Your task to perform on an android device: open device folders in google photos Image 0: 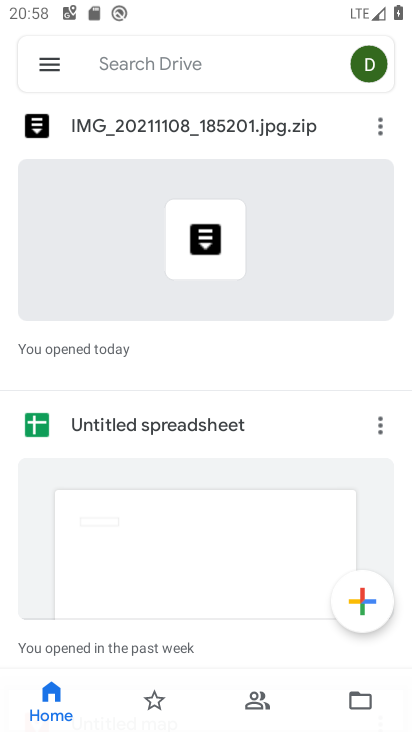
Step 0: press home button
Your task to perform on an android device: open device folders in google photos Image 1: 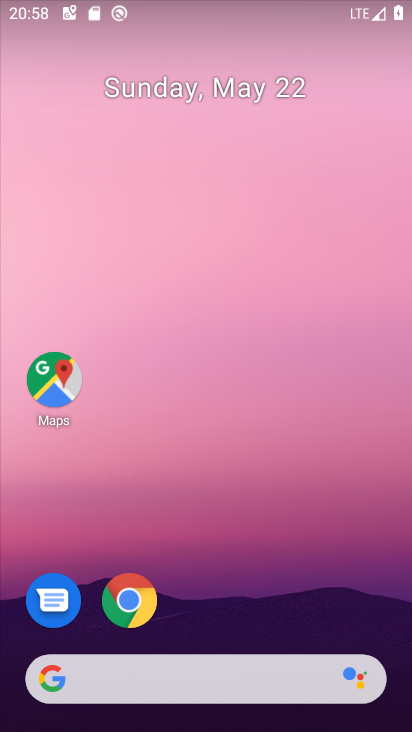
Step 1: drag from (244, 604) to (266, 340)
Your task to perform on an android device: open device folders in google photos Image 2: 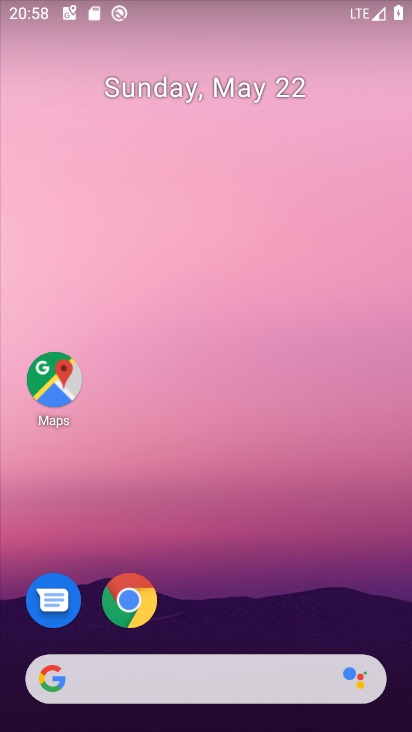
Step 2: drag from (269, 629) to (290, 241)
Your task to perform on an android device: open device folders in google photos Image 3: 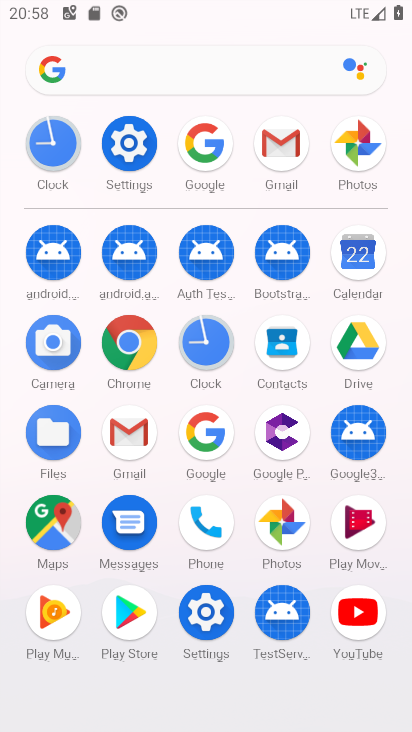
Step 3: click (348, 151)
Your task to perform on an android device: open device folders in google photos Image 4: 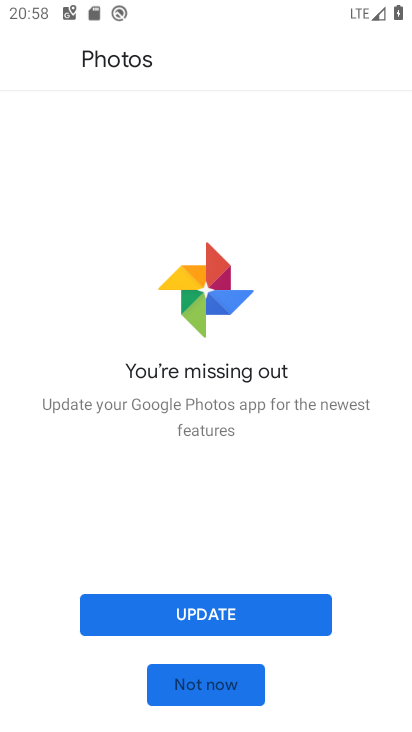
Step 4: click (220, 680)
Your task to perform on an android device: open device folders in google photos Image 5: 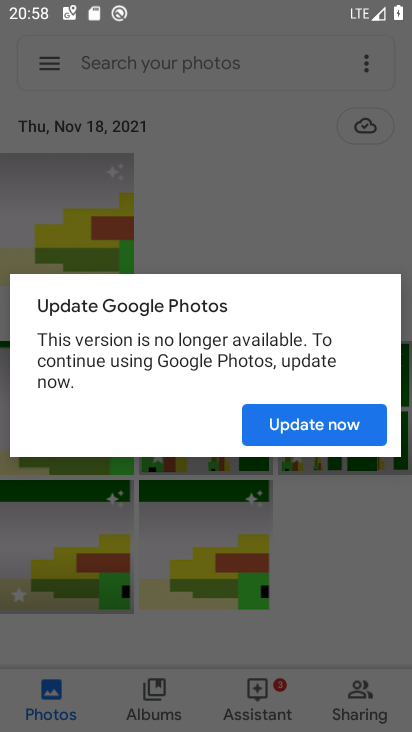
Step 5: click (292, 406)
Your task to perform on an android device: open device folders in google photos Image 6: 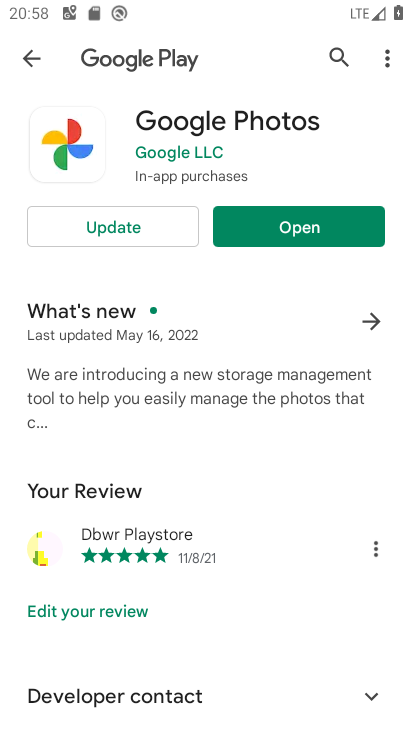
Step 6: click (268, 225)
Your task to perform on an android device: open device folders in google photos Image 7: 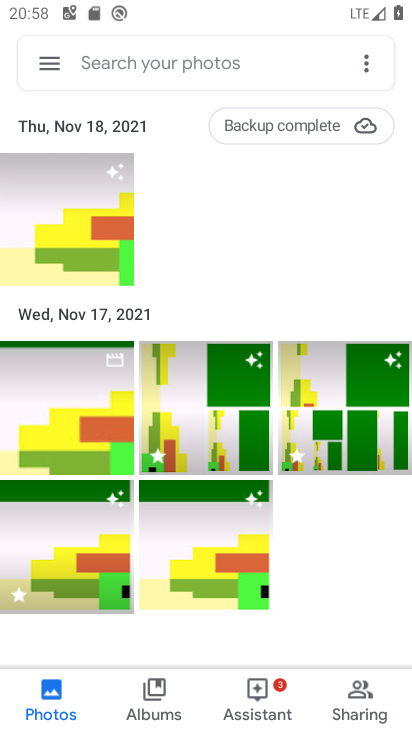
Step 7: click (55, 64)
Your task to perform on an android device: open device folders in google photos Image 8: 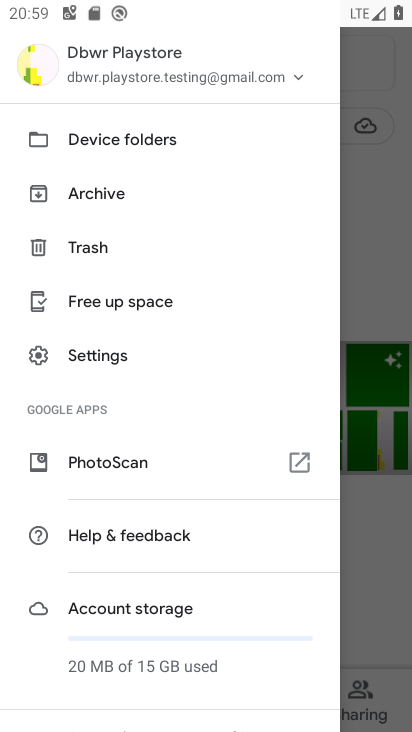
Step 8: click (159, 143)
Your task to perform on an android device: open device folders in google photos Image 9: 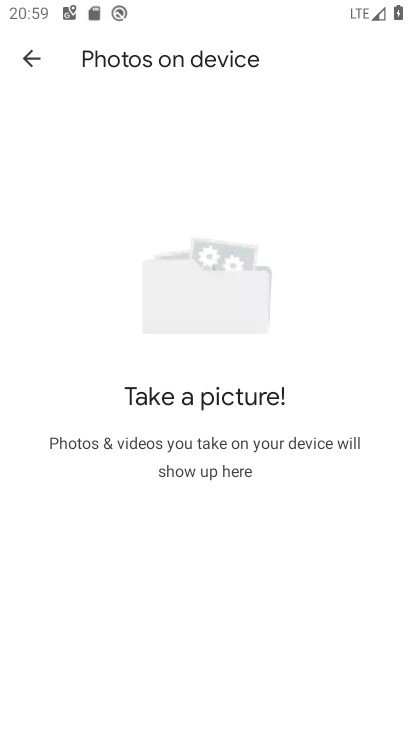
Step 9: task complete